Your task to perform on an android device: allow cookies in the chrome app Image 0: 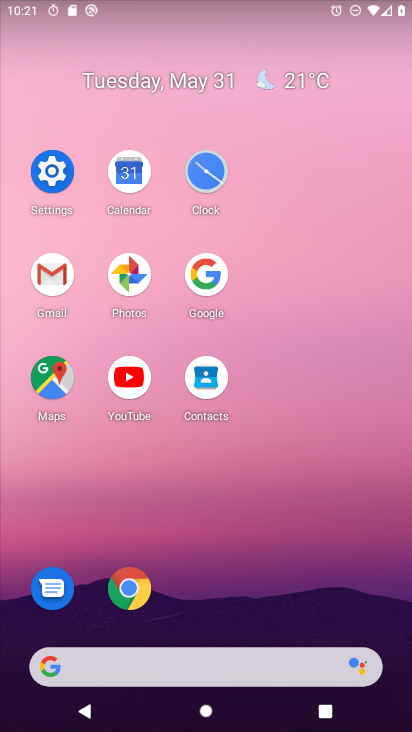
Step 0: click (130, 588)
Your task to perform on an android device: allow cookies in the chrome app Image 1: 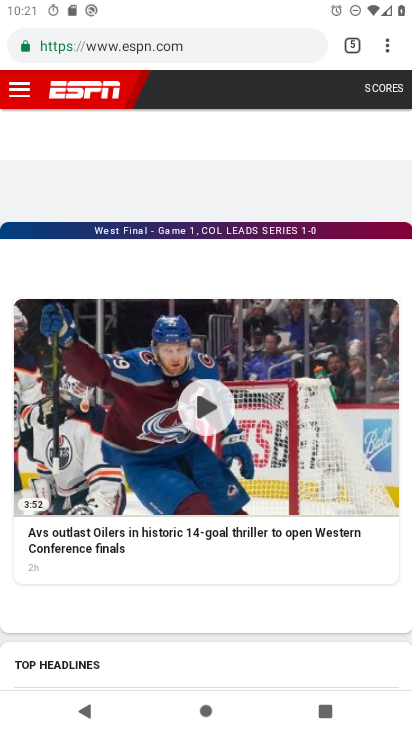
Step 1: click (387, 48)
Your task to perform on an android device: allow cookies in the chrome app Image 2: 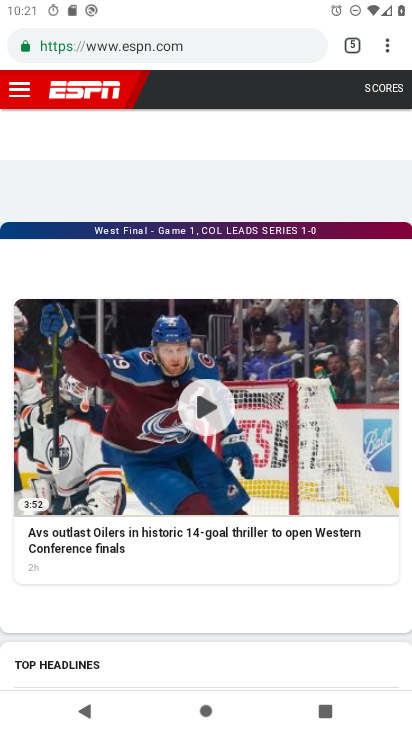
Step 2: click (386, 58)
Your task to perform on an android device: allow cookies in the chrome app Image 3: 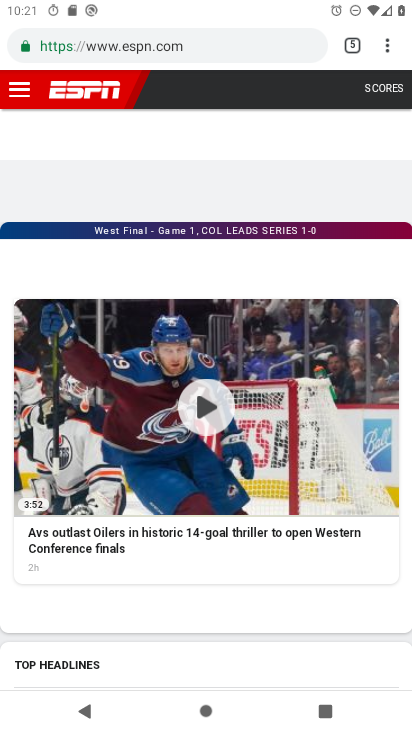
Step 3: click (387, 50)
Your task to perform on an android device: allow cookies in the chrome app Image 4: 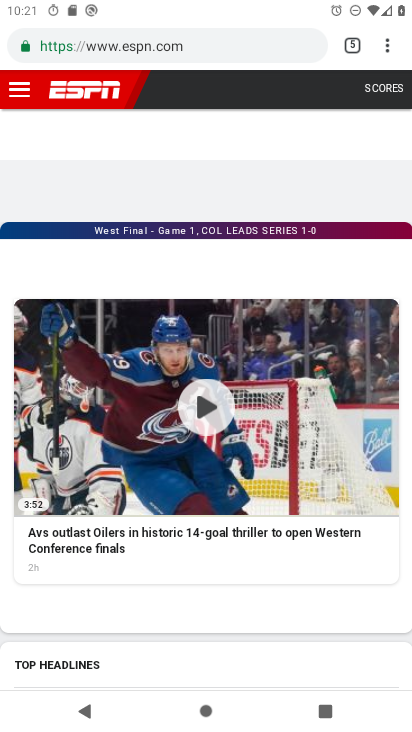
Step 4: click (386, 29)
Your task to perform on an android device: allow cookies in the chrome app Image 5: 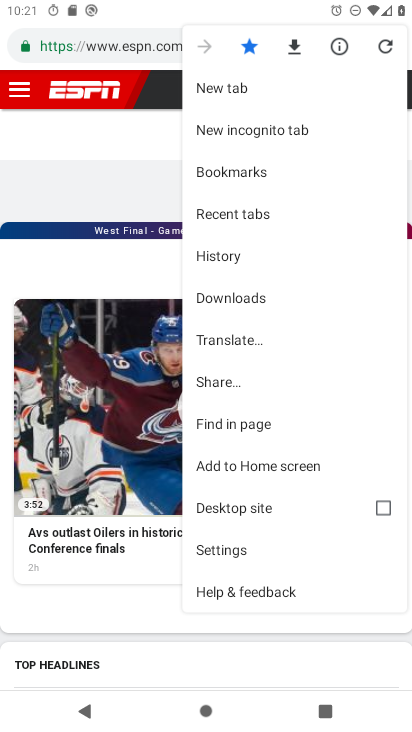
Step 5: click (247, 546)
Your task to perform on an android device: allow cookies in the chrome app Image 6: 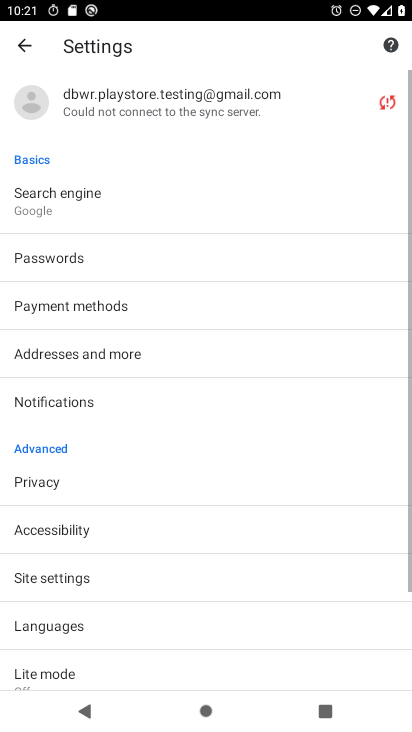
Step 6: click (67, 579)
Your task to perform on an android device: allow cookies in the chrome app Image 7: 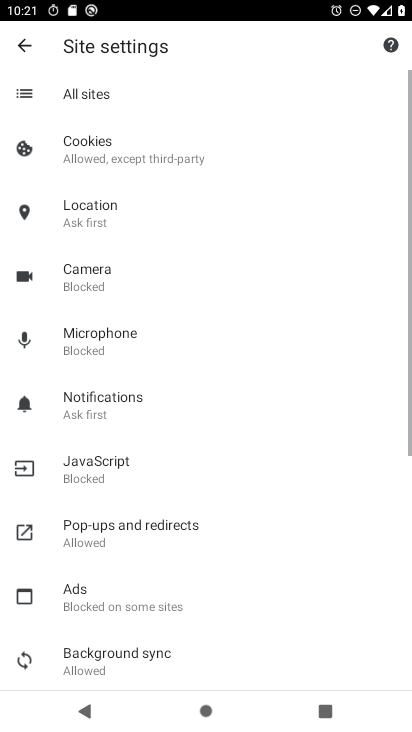
Step 7: click (167, 151)
Your task to perform on an android device: allow cookies in the chrome app Image 8: 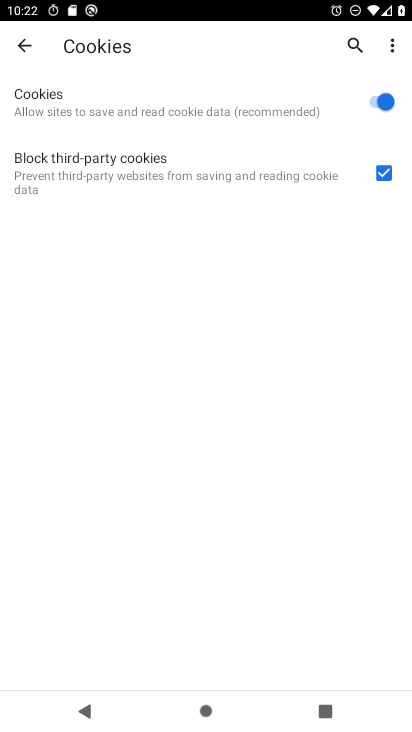
Step 8: task complete